Your task to perform on an android device: turn off javascript in the chrome app Image 0: 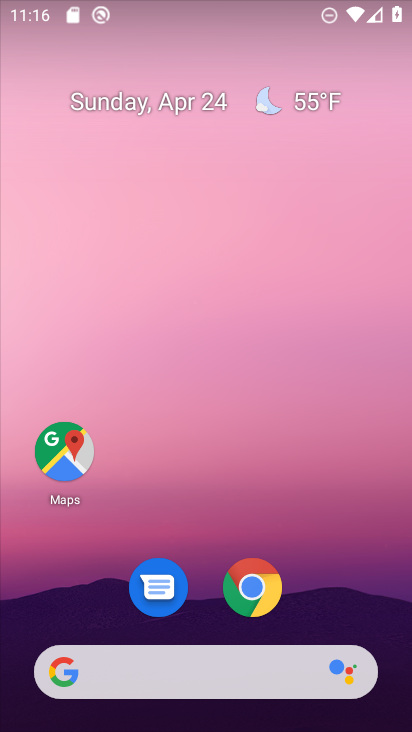
Step 0: drag from (324, 583) to (307, 150)
Your task to perform on an android device: turn off javascript in the chrome app Image 1: 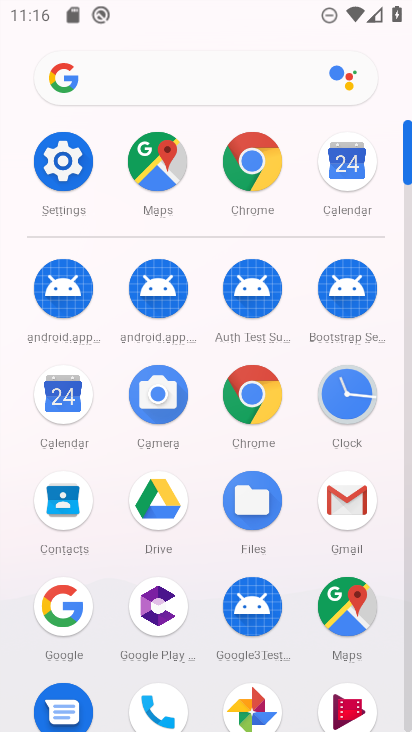
Step 1: click (256, 400)
Your task to perform on an android device: turn off javascript in the chrome app Image 2: 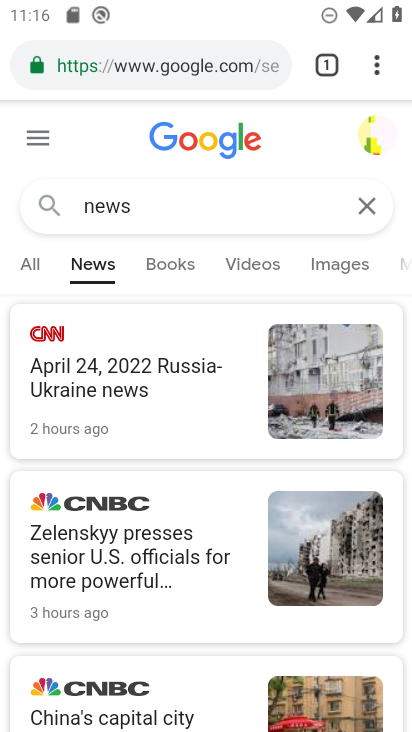
Step 2: drag from (375, 55) to (156, 630)
Your task to perform on an android device: turn off javascript in the chrome app Image 3: 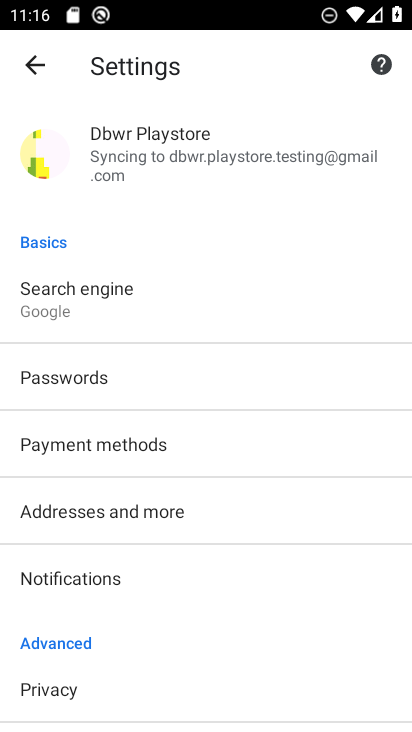
Step 3: drag from (216, 557) to (252, 239)
Your task to perform on an android device: turn off javascript in the chrome app Image 4: 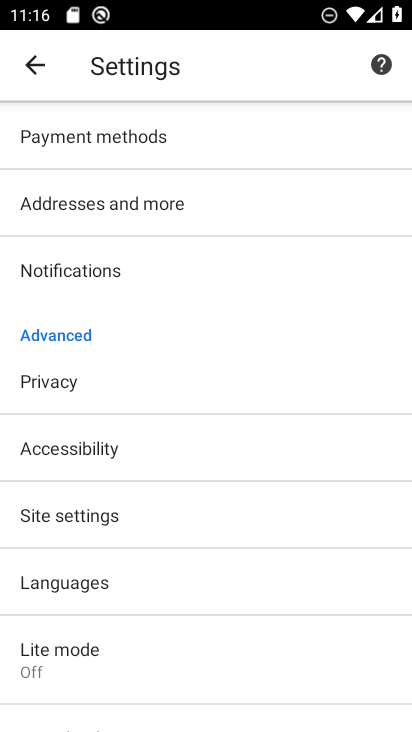
Step 4: click (78, 506)
Your task to perform on an android device: turn off javascript in the chrome app Image 5: 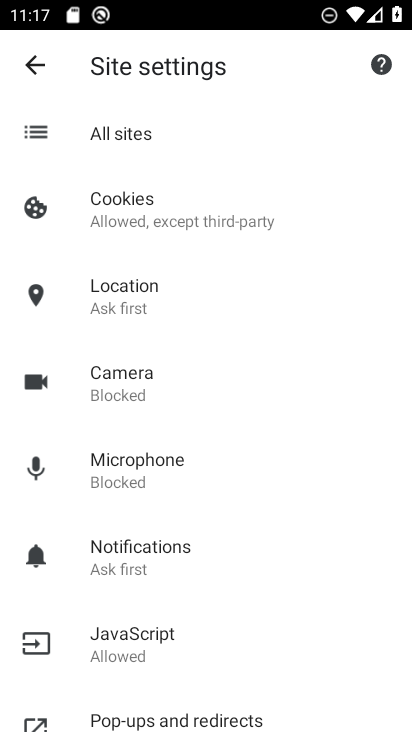
Step 5: click (157, 629)
Your task to perform on an android device: turn off javascript in the chrome app Image 6: 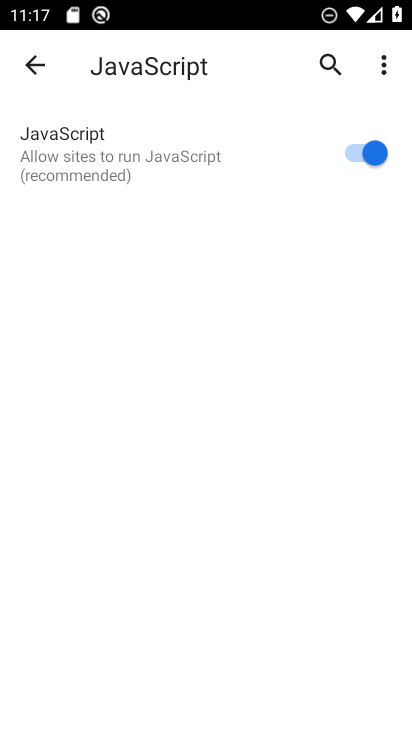
Step 6: click (372, 157)
Your task to perform on an android device: turn off javascript in the chrome app Image 7: 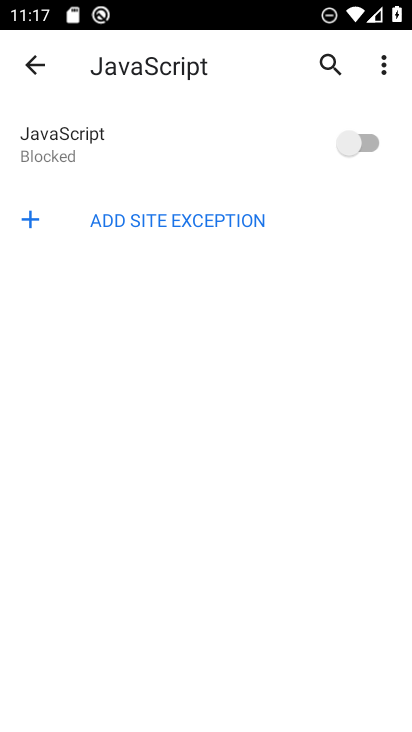
Step 7: task complete